Your task to perform on an android device: What is the news today? Image 0: 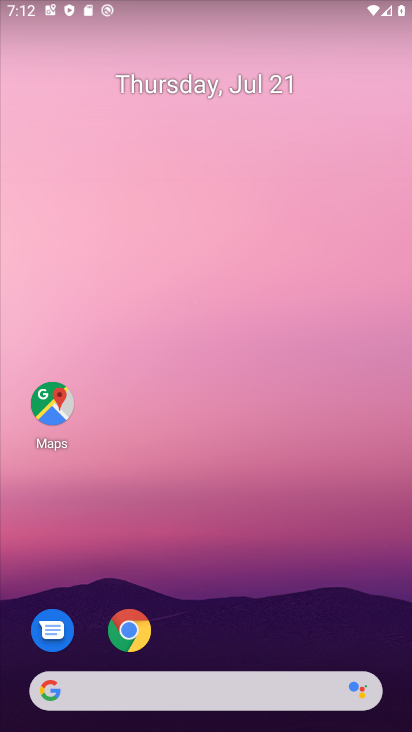
Step 0: click (262, 694)
Your task to perform on an android device: What is the news today? Image 1: 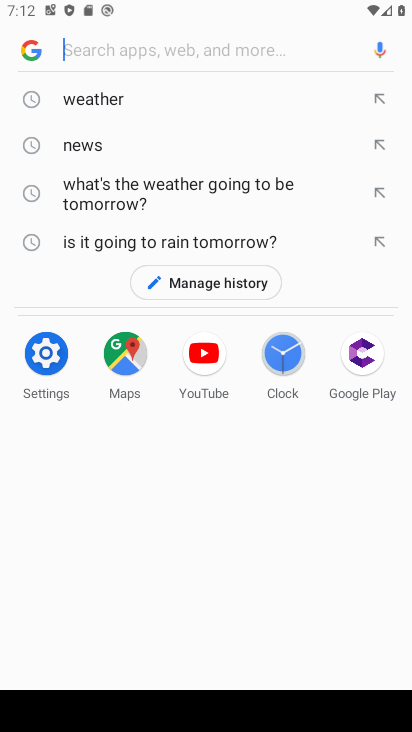
Step 1: type "news today"
Your task to perform on an android device: What is the news today? Image 2: 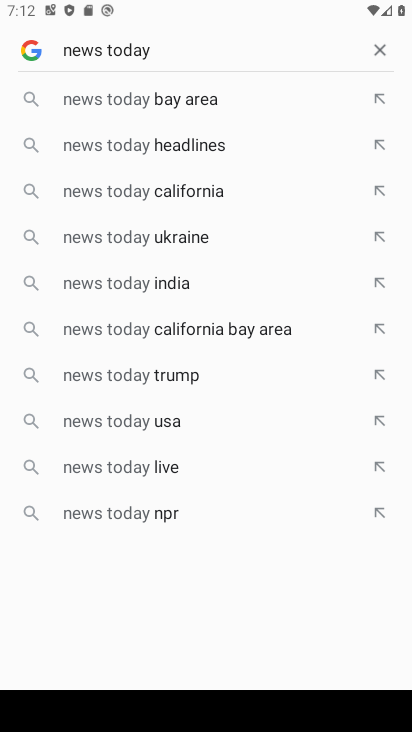
Step 2: press enter
Your task to perform on an android device: What is the news today? Image 3: 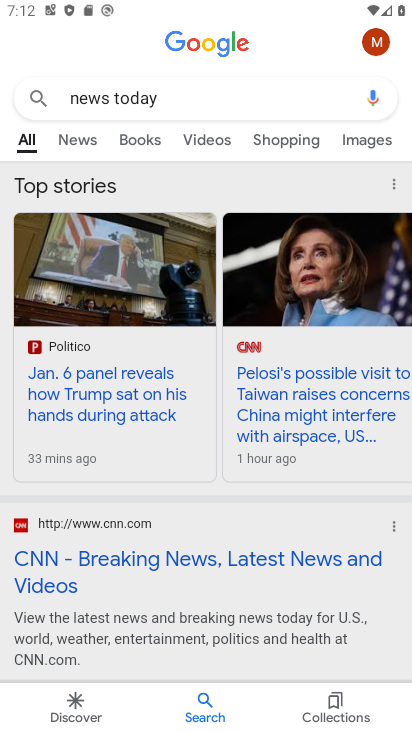
Step 3: task complete